Your task to perform on an android device: Clear the cart on walmart. Add macbook pro to the cart on walmart, then select checkout. Image 0: 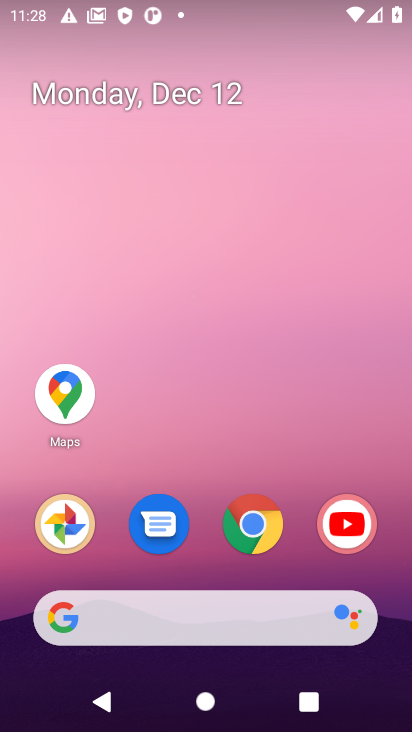
Step 0: click (253, 529)
Your task to perform on an android device: Clear the cart on walmart. Add macbook pro to the cart on walmart, then select checkout. Image 1: 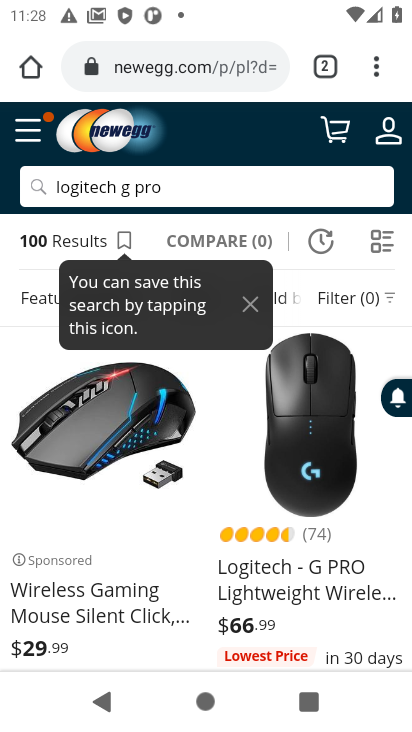
Step 1: click (253, 529)
Your task to perform on an android device: Clear the cart on walmart. Add macbook pro to the cart on walmart, then select checkout. Image 2: 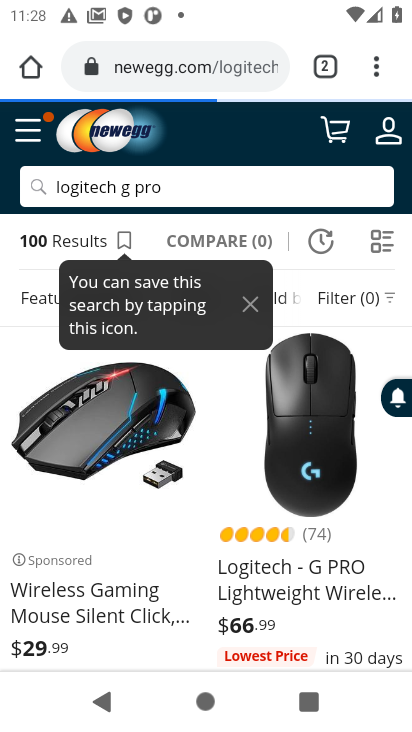
Step 2: click (189, 71)
Your task to perform on an android device: Clear the cart on walmart. Add macbook pro to the cart on walmart, then select checkout. Image 3: 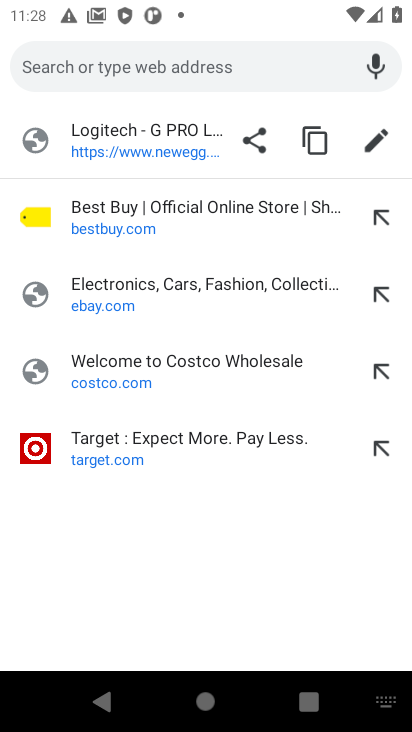
Step 3: type "walmart.com"
Your task to perform on an android device: Clear the cart on walmart. Add macbook pro to the cart on walmart, then select checkout. Image 4: 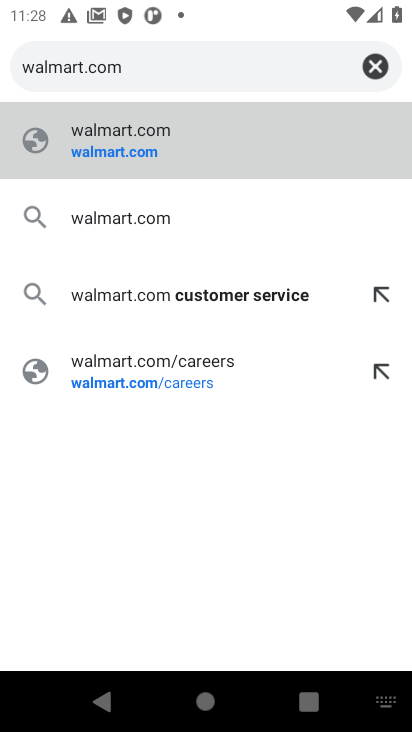
Step 4: click (96, 154)
Your task to perform on an android device: Clear the cart on walmart. Add macbook pro to the cart on walmart, then select checkout. Image 5: 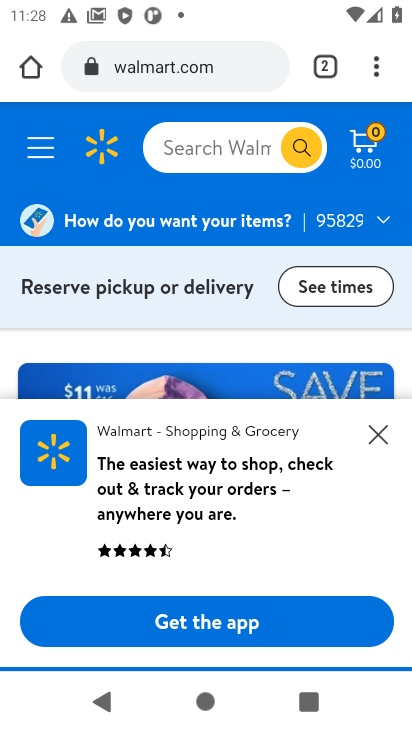
Step 5: click (364, 150)
Your task to perform on an android device: Clear the cart on walmart. Add macbook pro to the cart on walmart, then select checkout. Image 6: 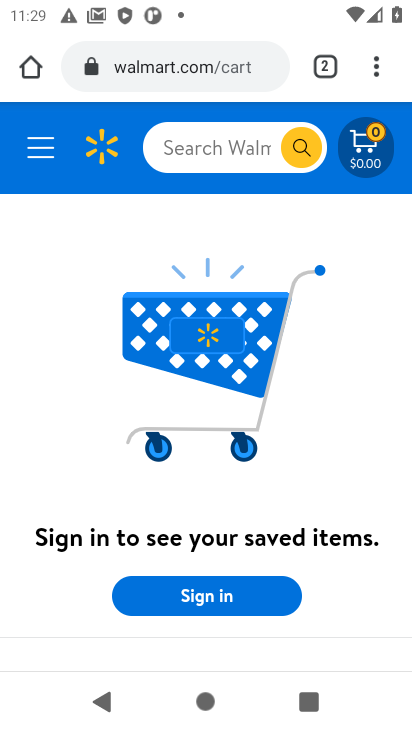
Step 6: click (177, 146)
Your task to perform on an android device: Clear the cart on walmart. Add macbook pro to the cart on walmart, then select checkout. Image 7: 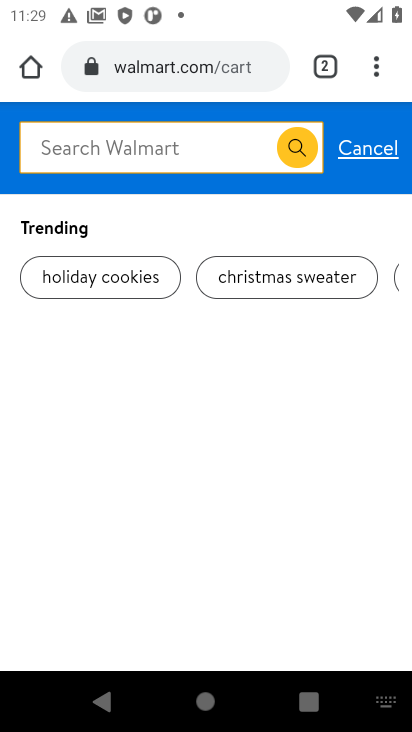
Step 7: type "macbook pro"
Your task to perform on an android device: Clear the cart on walmart. Add macbook pro to the cart on walmart, then select checkout. Image 8: 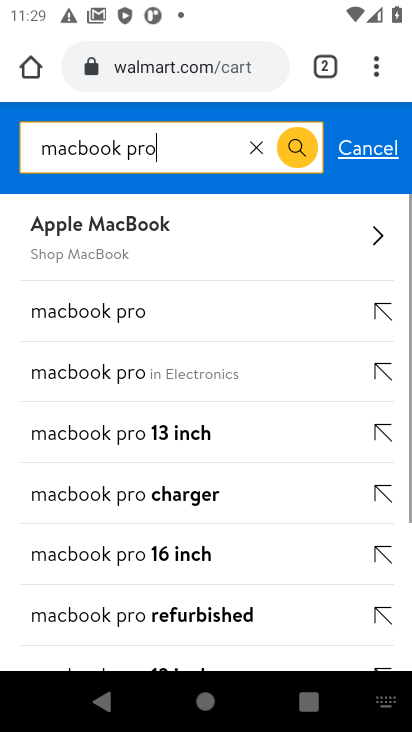
Step 8: click (104, 315)
Your task to perform on an android device: Clear the cart on walmart. Add macbook pro to the cart on walmart, then select checkout. Image 9: 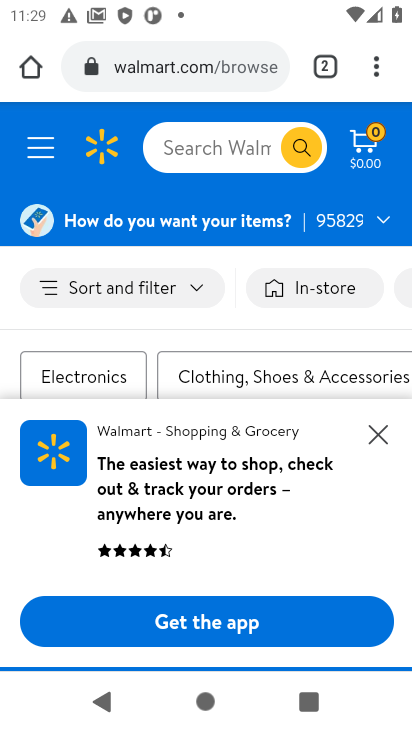
Step 9: click (382, 433)
Your task to perform on an android device: Clear the cart on walmart. Add macbook pro to the cart on walmart, then select checkout. Image 10: 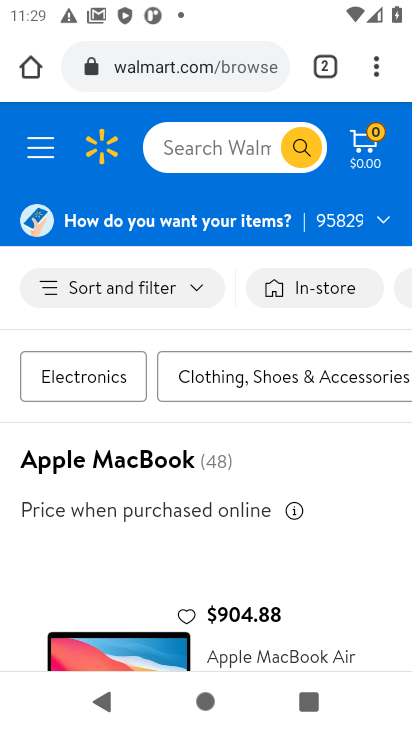
Step 10: task complete